Your task to perform on an android device: Search for Italian restaurants on Maps Image 0: 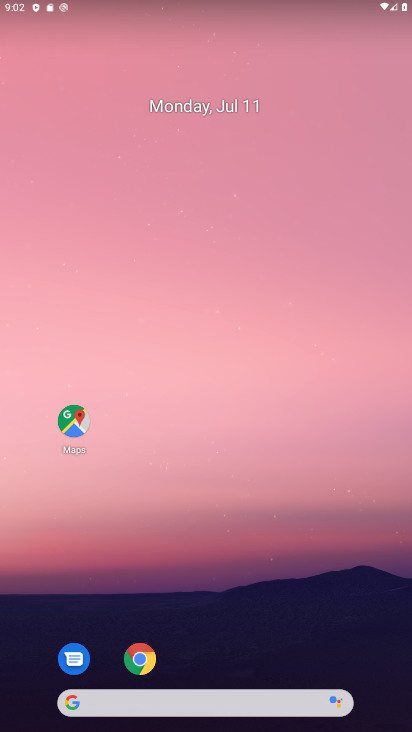
Step 0: drag from (234, 714) to (241, 208)
Your task to perform on an android device: Search for Italian restaurants on Maps Image 1: 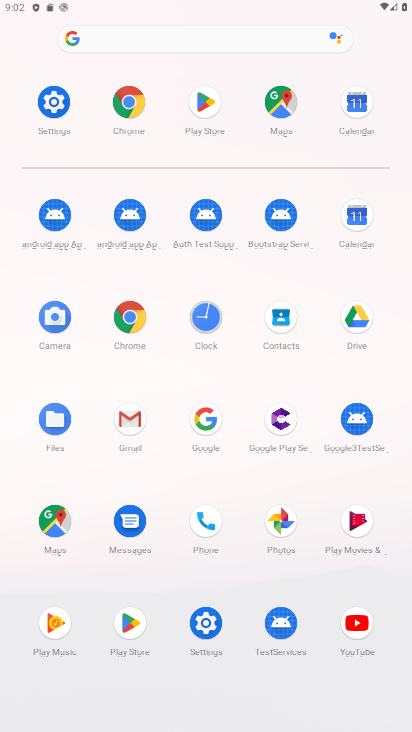
Step 1: click (48, 521)
Your task to perform on an android device: Search for Italian restaurants on Maps Image 2: 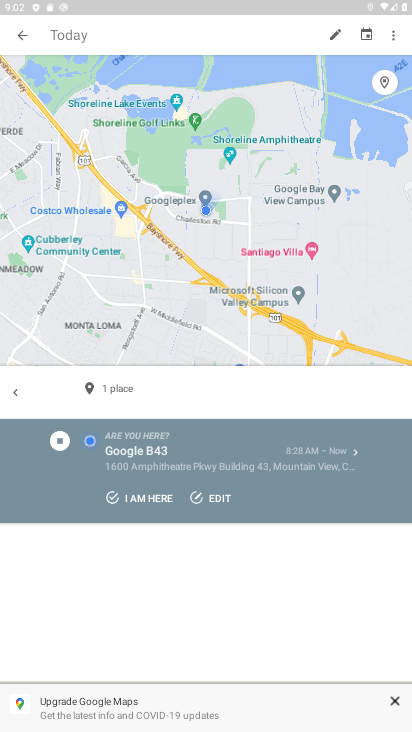
Step 2: click (21, 34)
Your task to perform on an android device: Search for Italian restaurants on Maps Image 3: 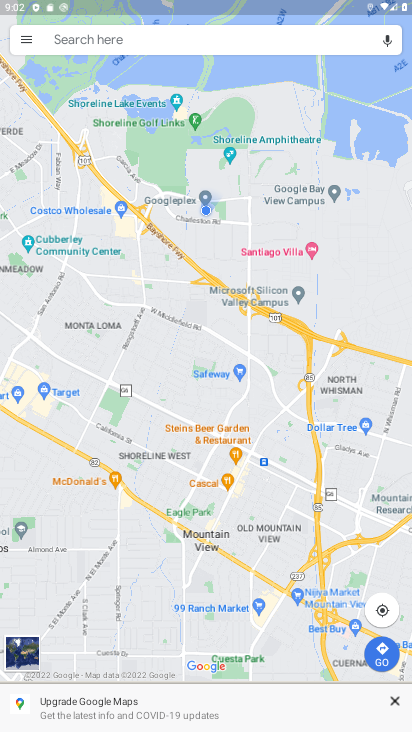
Step 3: click (175, 39)
Your task to perform on an android device: Search for Italian restaurants on Maps Image 4: 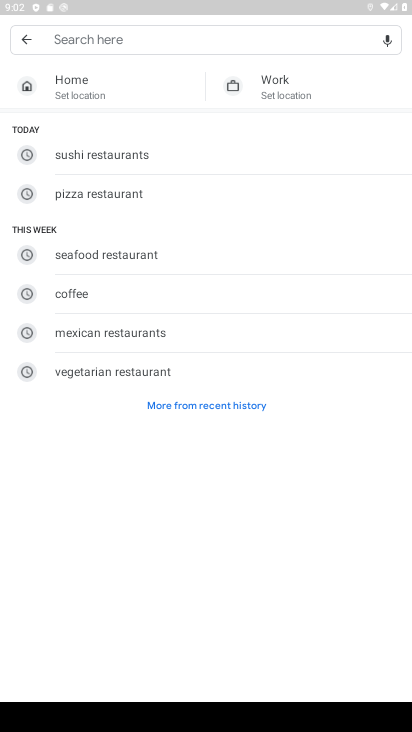
Step 4: click (163, 33)
Your task to perform on an android device: Search for Italian restaurants on Maps Image 5: 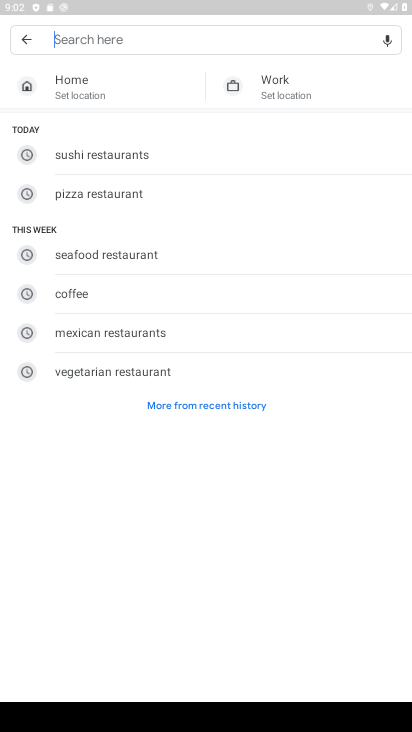
Step 5: type "Italian restaurants "
Your task to perform on an android device: Search for Italian restaurants on Maps Image 6: 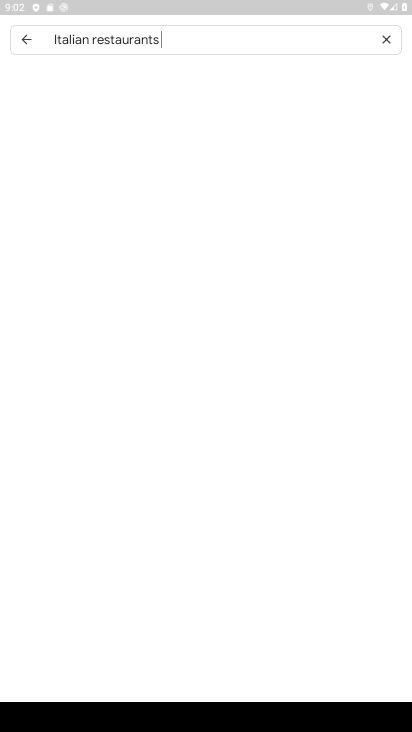
Step 6: type ""
Your task to perform on an android device: Search for Italian restaurants on Maps Image 7: 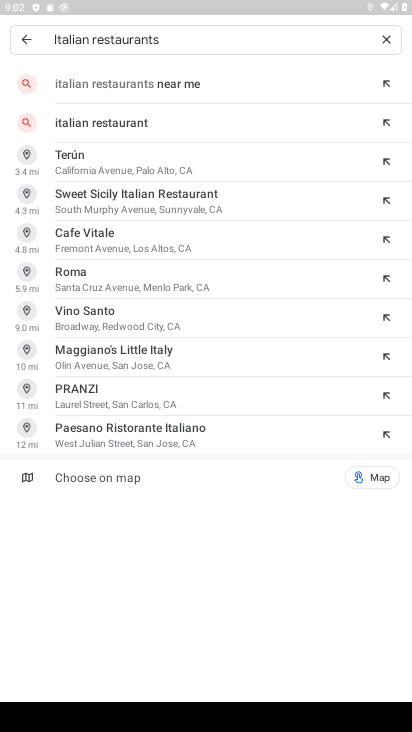
Step 7: click (133, 119)
Your task to perform on an android device: Search for Italian restaurants on Maps Image 8: 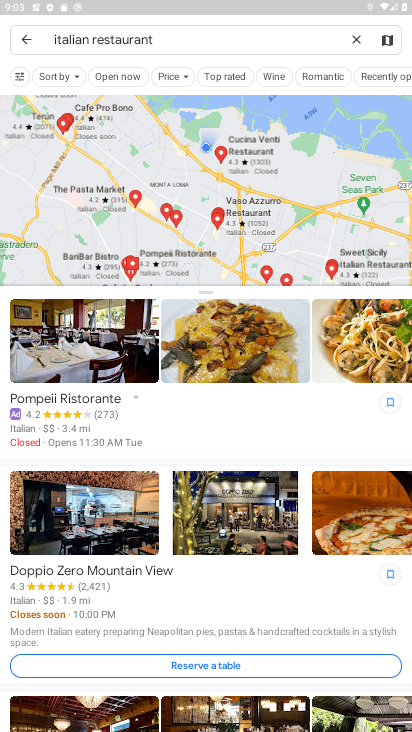
Step 8: task complete